Your task to perform on an android device: View the shopping cart on target.com. Image 0: 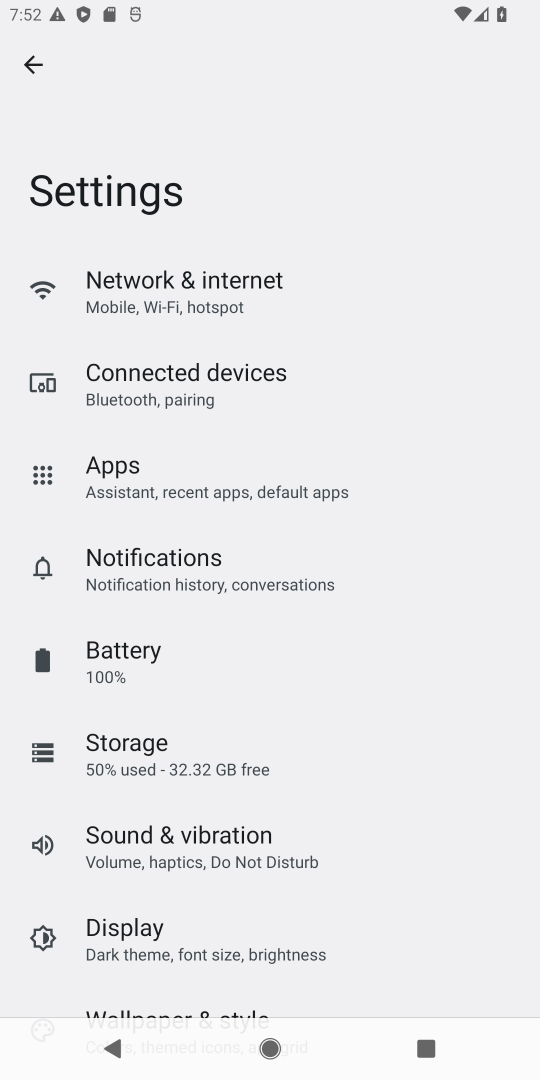
Step 0: press home button
Your task to perform on an android device: View the shopping cart on target.com. Image 1: 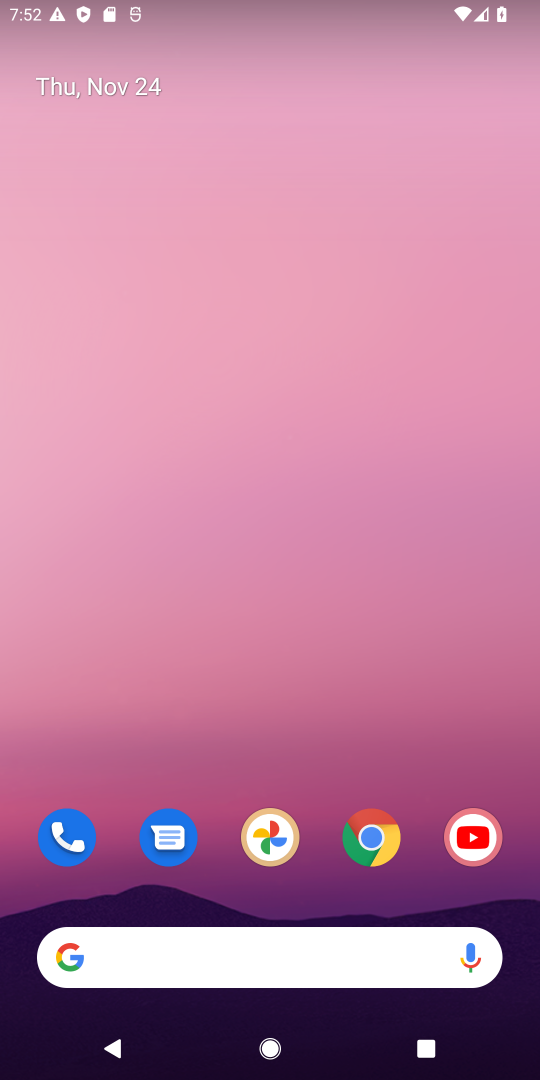
Step 1: click (387, 831)
Your task to perform on an android device: View the shopping cart on target.com. Image 2: 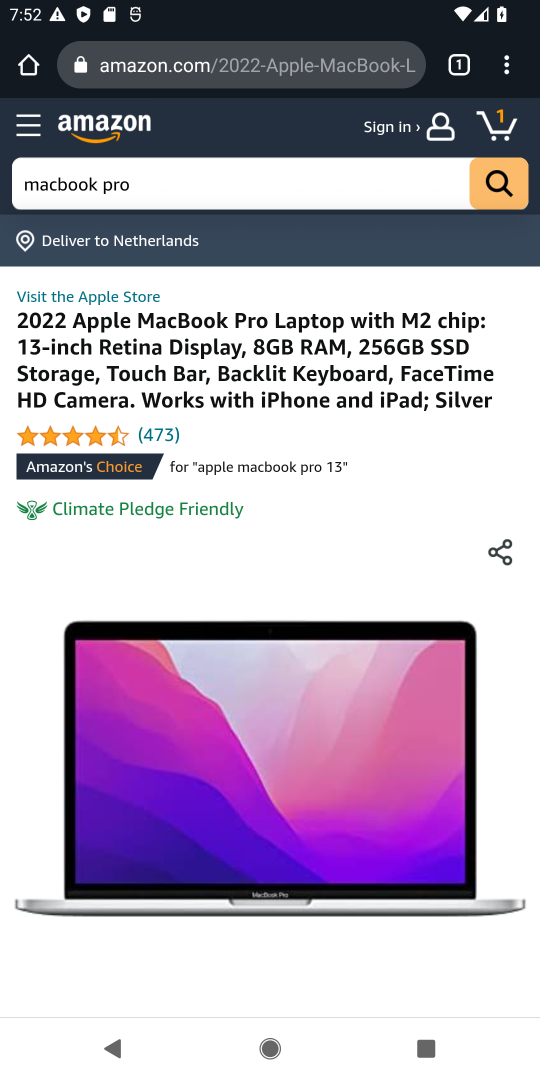
Step 2: click (251, 68)
Your task to perform on an android device: View the shopping cart on target.com. Image 3: 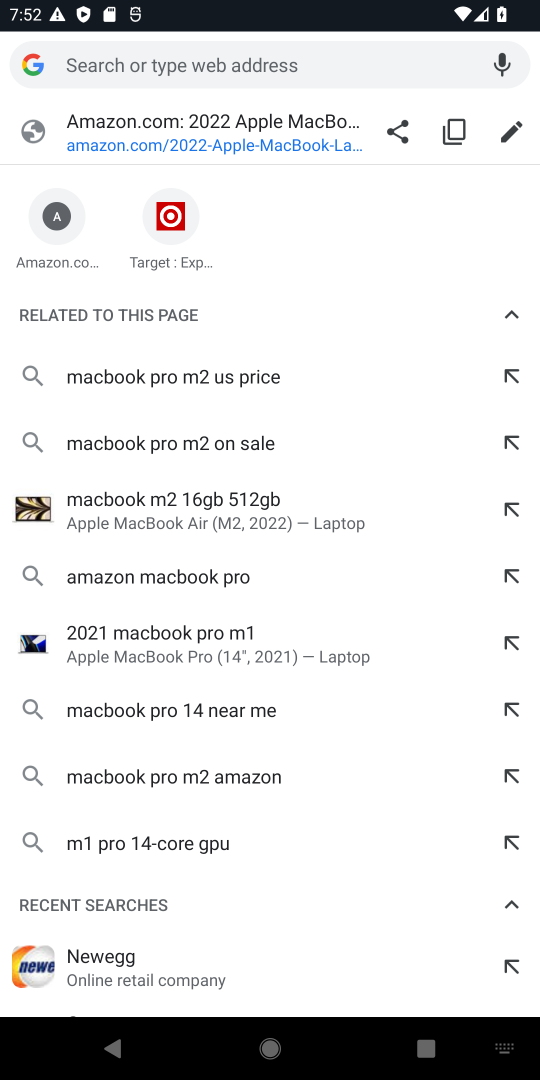
Step 3: type "target.com"
Your task to perform on an android device: View the shopping cart on target.com. Image 4: 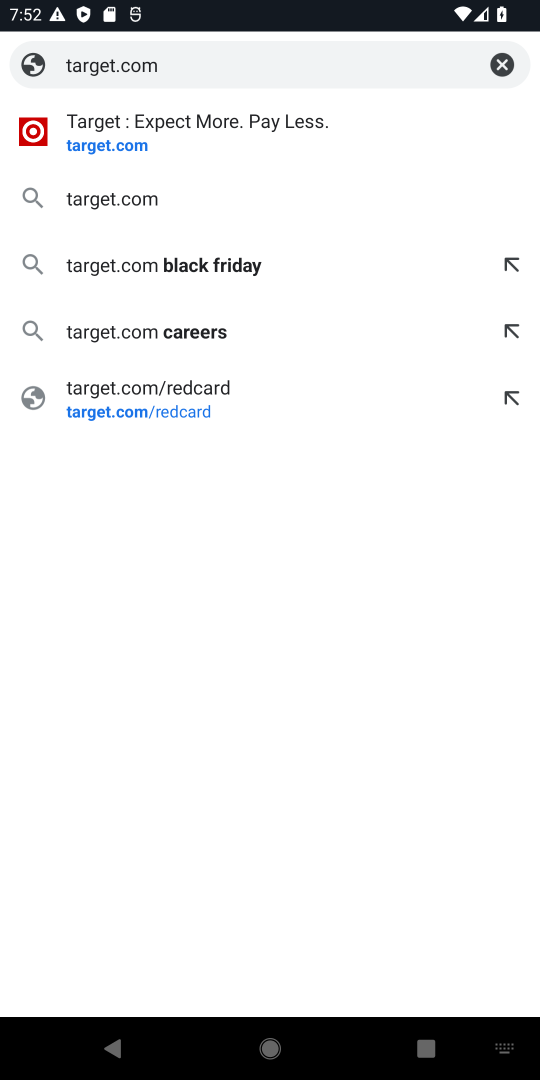
Step 4: click (150, 142)
Your task to perform on an android device: View the shopping cart on target.com. Image 5: 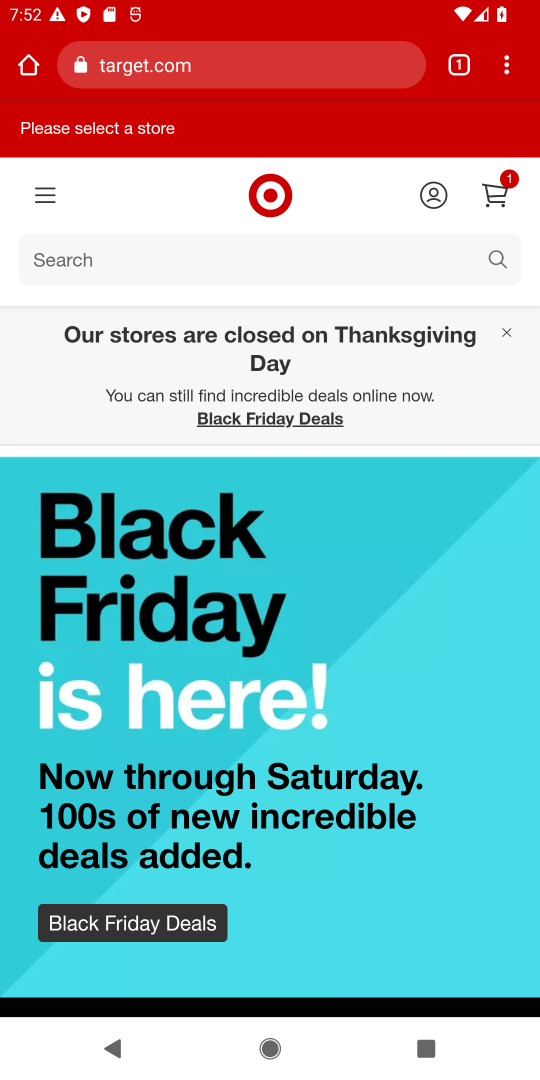
Step 5: click (510, 194)
Your task to perform on an android device: View the shopping cart on target.com. Image 6: 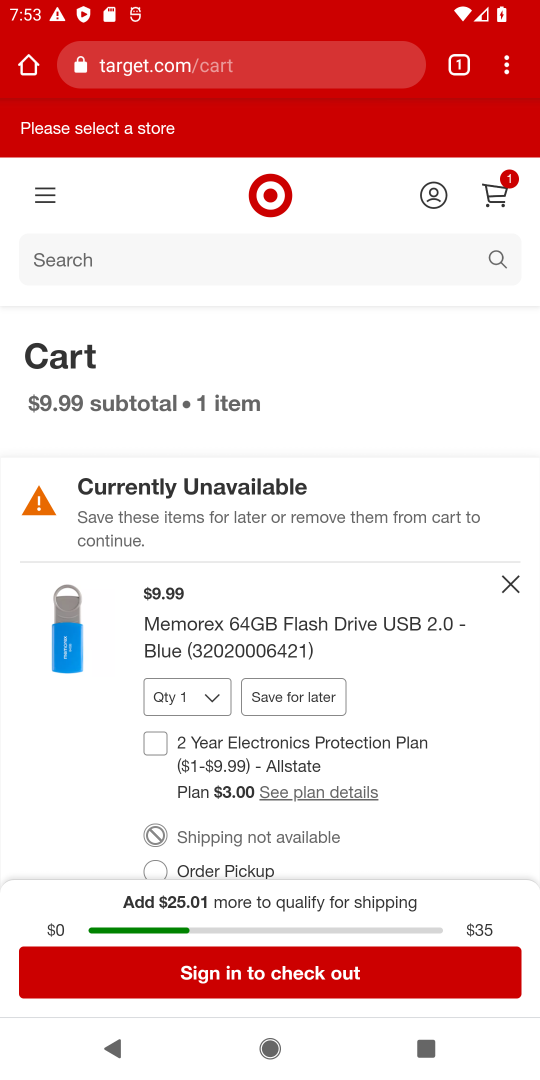
Step 6: click (506, 576)
Your task to perform on an android device: View the shopping cart on target.com. Image 7: 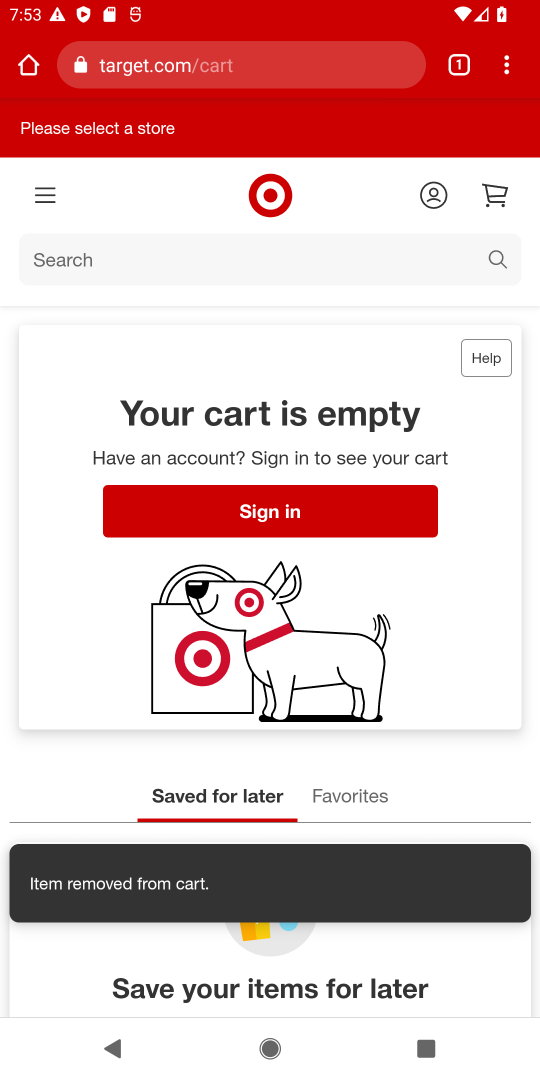
Step 7: task complete